Your task to perform on an android device: Open calendar and show me the third week of next month Image 0: 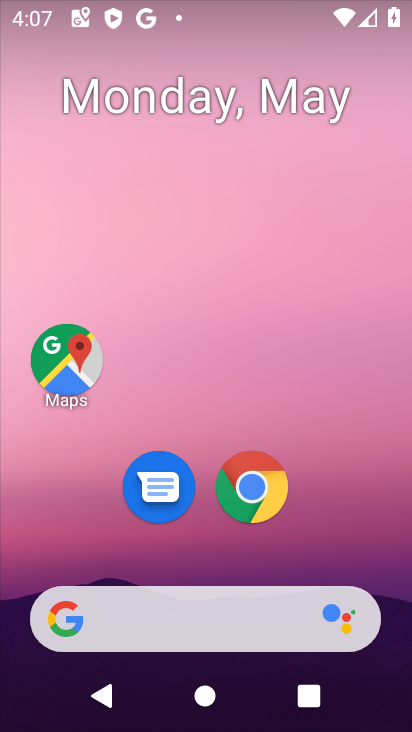
Step 0: drag from (368, 571) to (378, 0)
Your task to perform on an android device: Open calendar and show me the third week of next month Image 1: 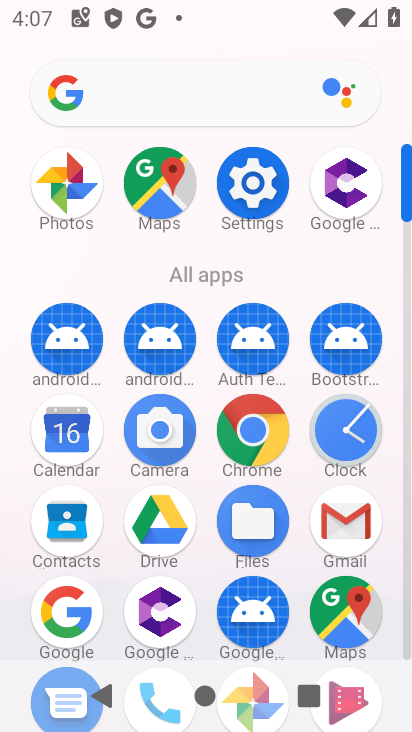
Step 1: click (86, 441)
Your task to perform on an android device: Open calendar and show me the third week of next month Image 2: 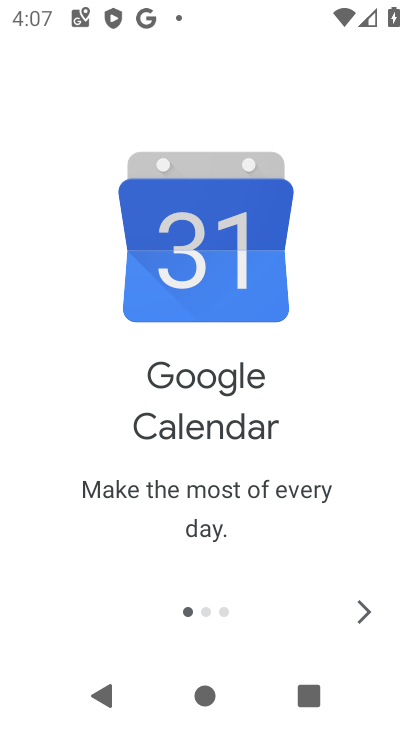
Step 2: click (374, 616)
Your task to perform on an android device: Open calendar and show me the third week of next month Image 3: 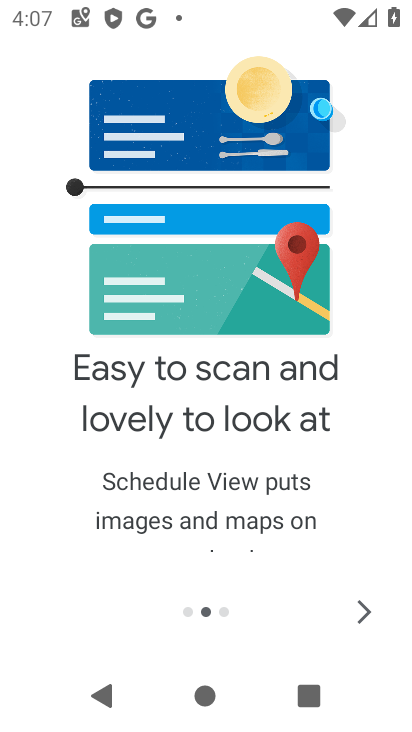
Step 3: click (374, 616)
Your task to perform on an android device: Open calendar and show me the third week of next month Image 4: 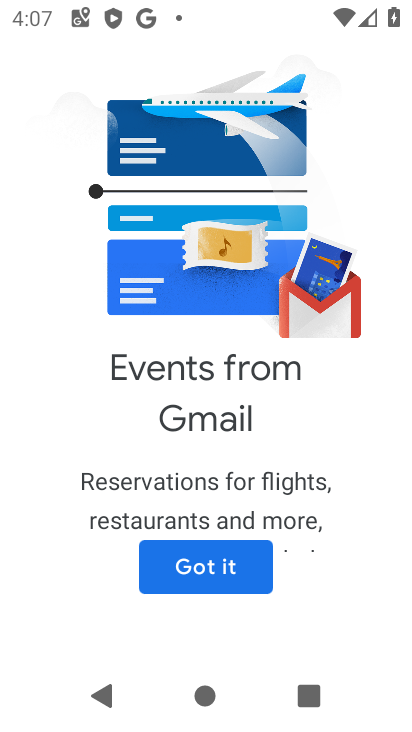
Step 4: click (215, 572)
Your task to perform on an android device: Open calendar and show me the third week of next month Image 5: 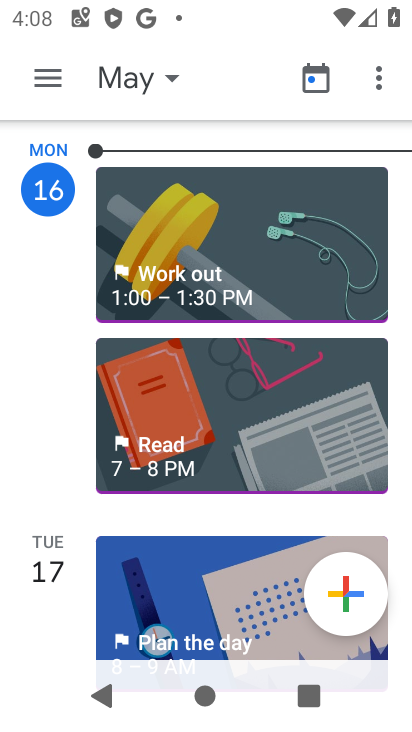
Step 5: click (154, 76)
Your task to perform on an android device: Open calendar and show me the third week of next month Image 6: 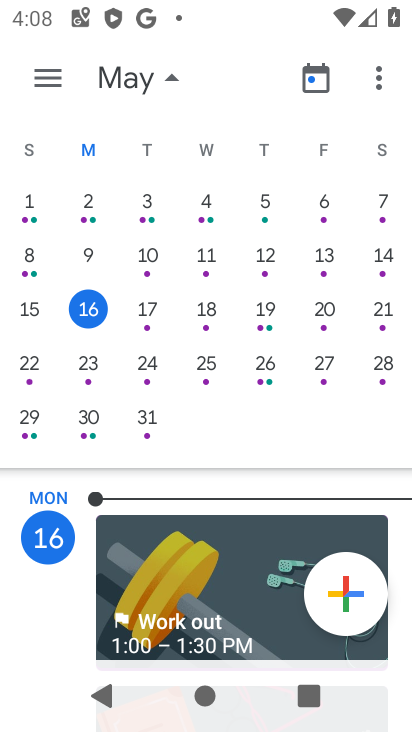
Step 6: drag from (367, 316) to (1, 223)
Your task to perform on an android device: Open calendar and show me the third week of next month Image 7: 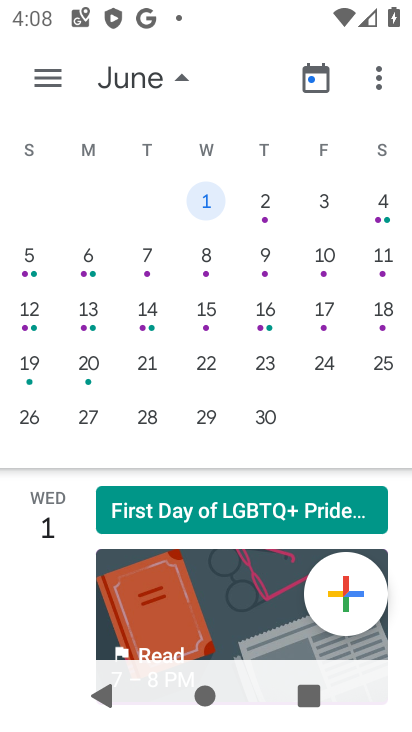
Step 7: click (52, 77)
Your task to perform on an android device: Open calendar and show me the third week of next month Image 8: 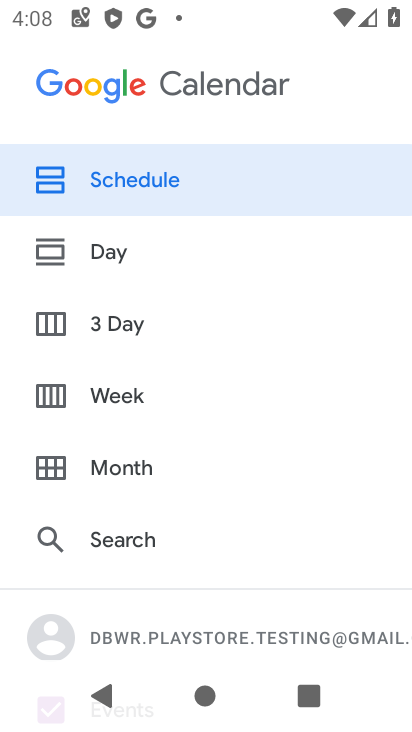
Step 8: click (111, 406)
Your task to perform on an android device: Open calendar and show me the third week of next month Image 9: 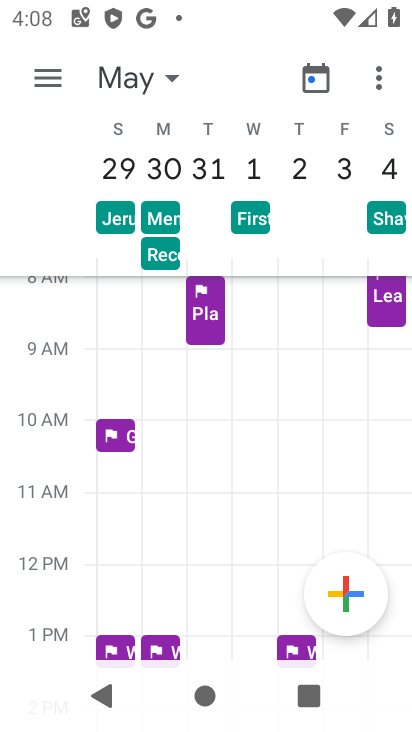
Step 9: task complete